Your task to perform on an android device: turn on the 12-hour format for clock Image 0: 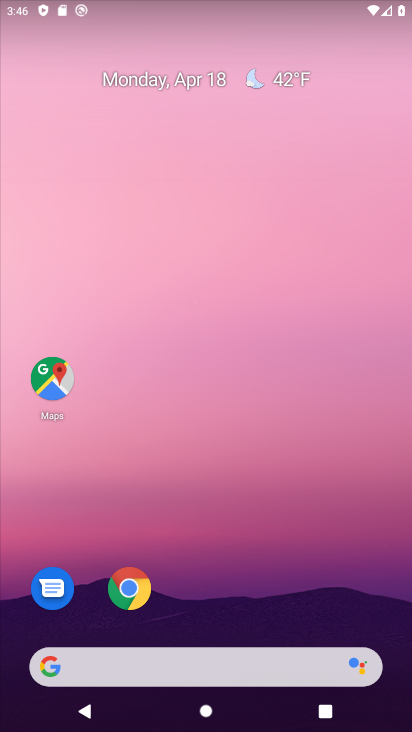
Step 0: drag from (210, 617) to (145, 39)
Your task to perform on an android device: turn on the 12-hour format for clock Image 1: 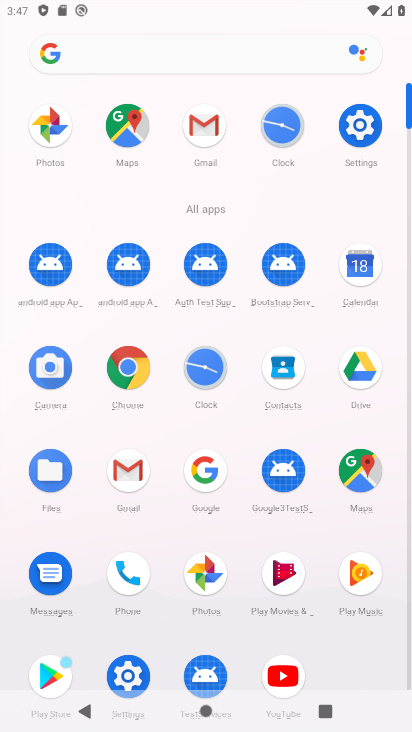
Step 1: click (208, 368)
Your task to perform on an android device: turn on the 12-hour format for clock Image 2: 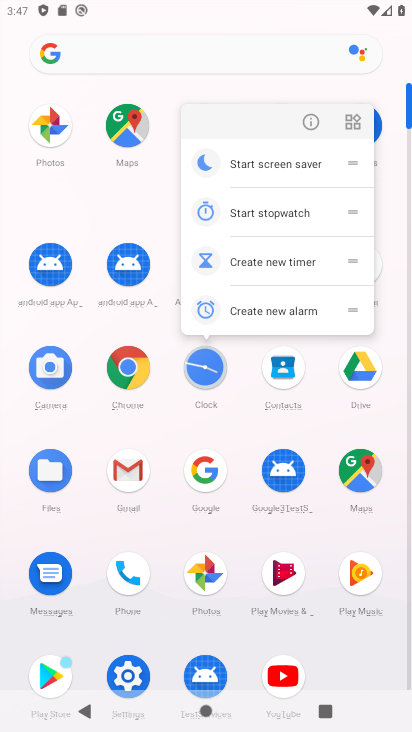
Step 2: click (199, 365)
Your task to perform on an android device: turn on the 12-hour format for clock Image 3: 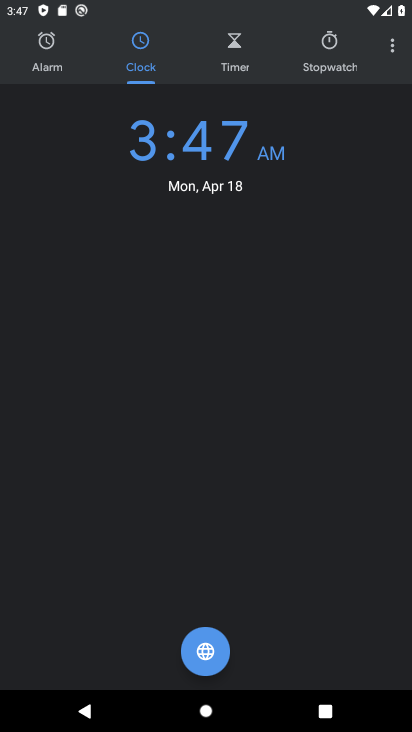
Step 3: click (388, 40)
Your task to perform on an android device: turn on the 12-hour format for clock Image 4: 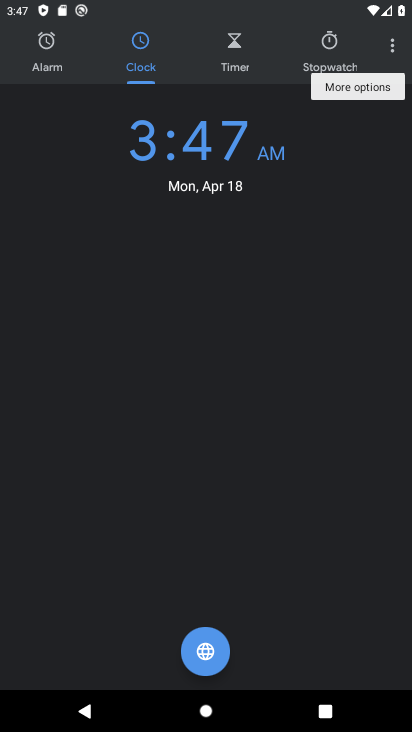
Step 4: click (344, 84)
Your task to perform on an android device: turn on the 12-hour format for clock Image 5: 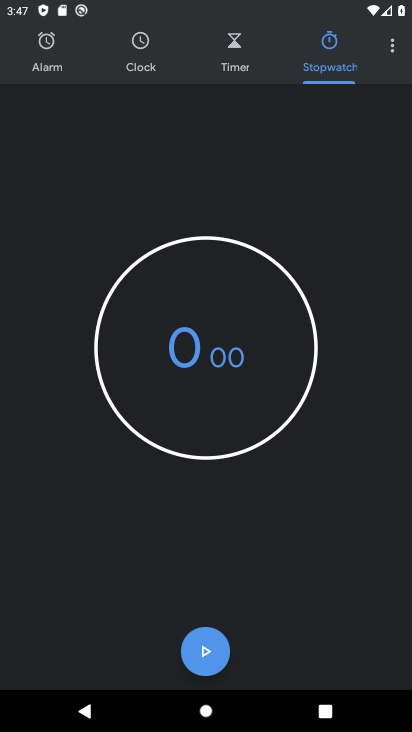
Step 5: click (384, 52)
Your task to perform on an android device: turn on the 12-hour format for clock Image 6: 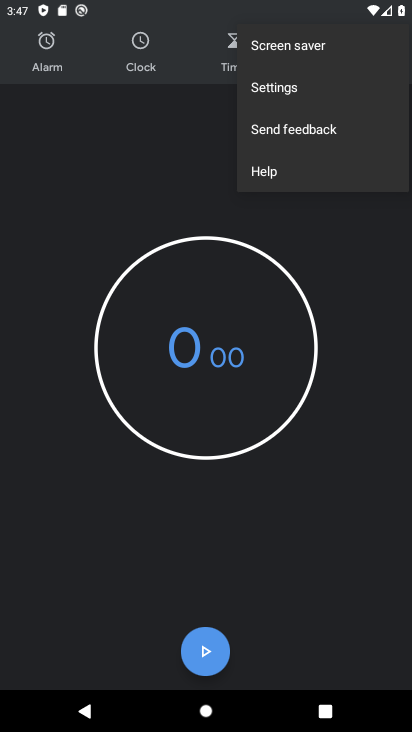
Step 6: click (314, 95)
Your task to perform on an android device: turn on the 12-hour format for clock Image 7: 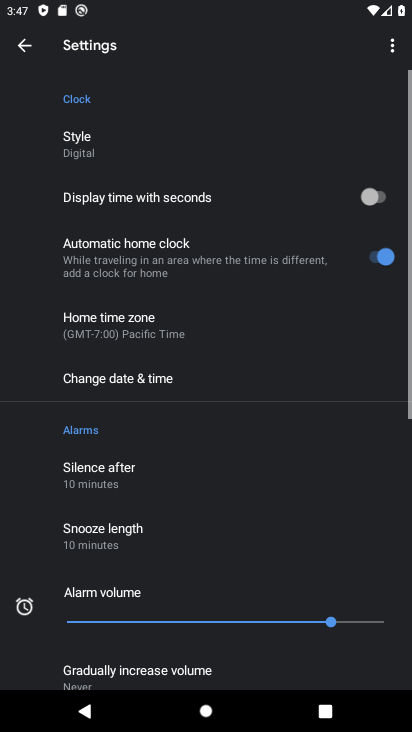
Step 7: click (82, 369)
Your task to perform on an android device: turn on the 12-hour format for clock Image 8: 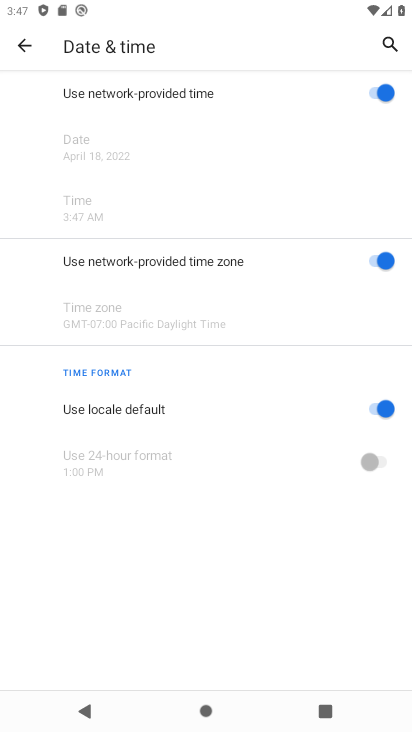
Step 8: click (146, 454)
Your task to perform on an android device: turn on the 12-hour format for clock Image 9: 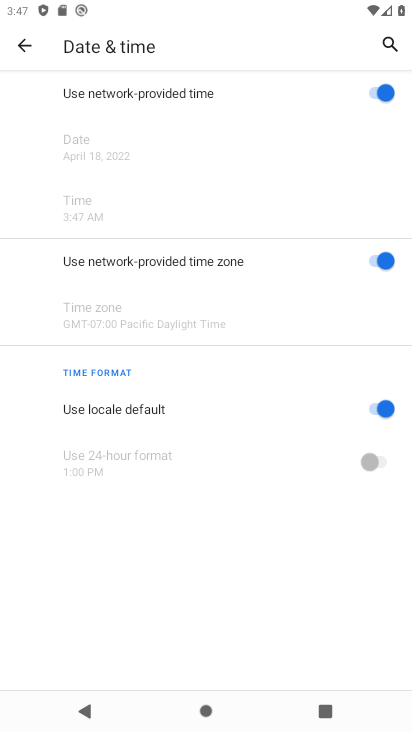
Step 9: task complete